Your task to perform on an android device: see tabs open on other devices in the chrome app Image 0: 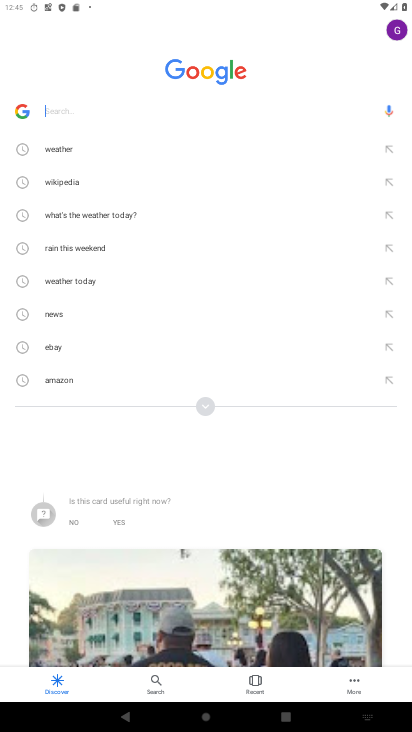
Step 0: press home button
Your task to perform on an android device: see tabs open on other devices in the chrome app Image 1: 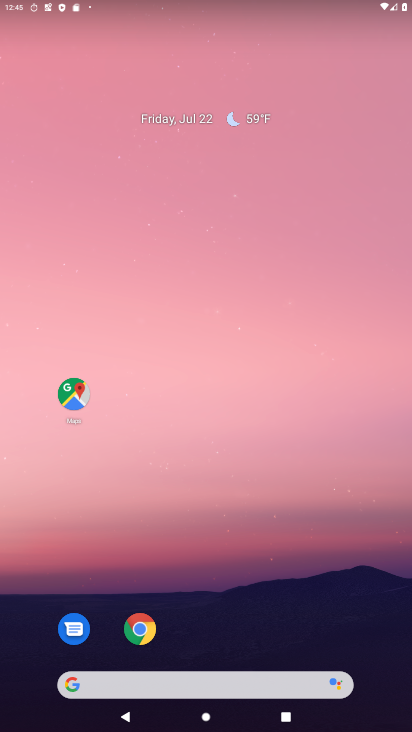
Step 1: drag from (269, 549) to (277, 153)
Your task to perform on an android device: see tabs open on other devices in the chrome app Image 2: 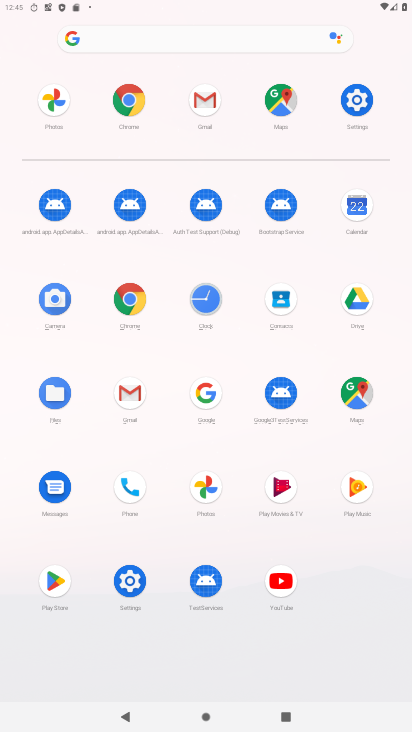
Step 2: click (131, 298)
Your task to perform on an android device: see tabs open on other devices in the chrome app Image 3: 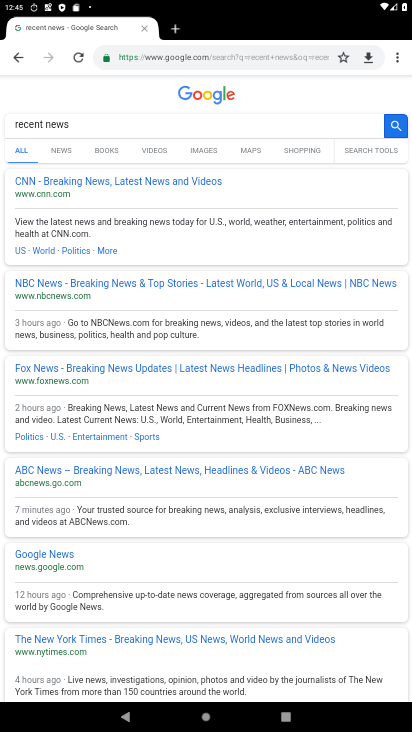
Step 3: task complete